Your task to perform on an android device: turn on data saver in the chrome app Image 0: 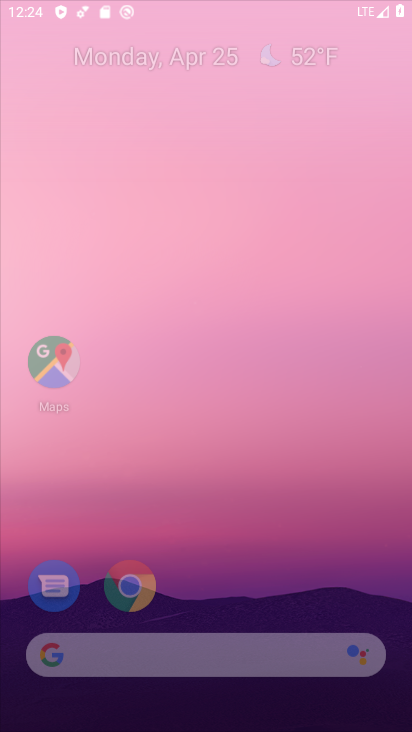
Step 0: click (333, 94)
Your task to perform on an android device: turn on data saver in the chrome app Image 1: 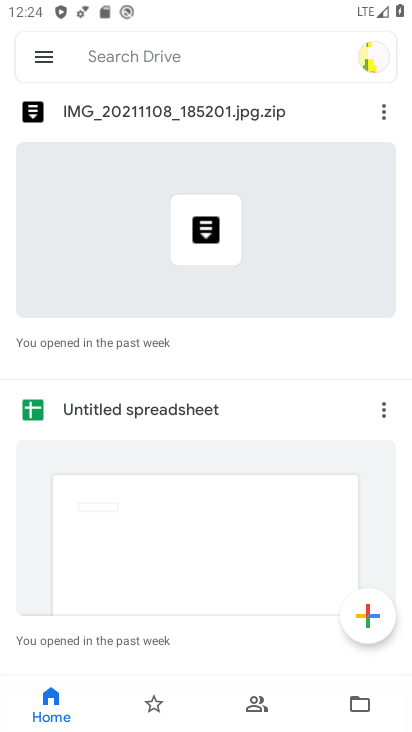
Step 1: press home button
Your task to perform on an android device: turn on data saver in the chrome app Image 2: 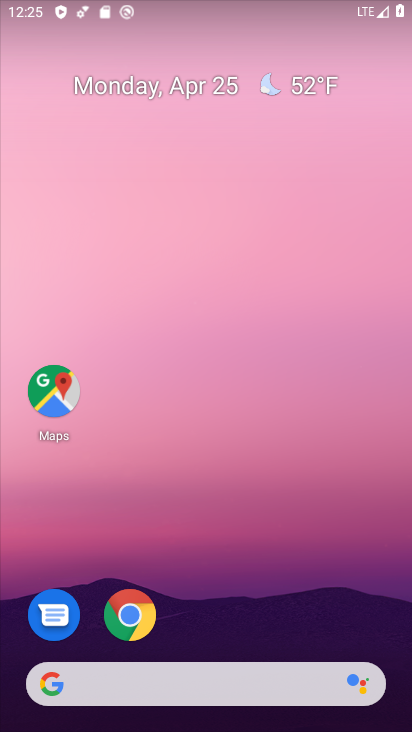
Step 2: drag from (159, 681) to (257, 234)
Your task to perform on an android device: turn on data saver in the chrome app Image 3: 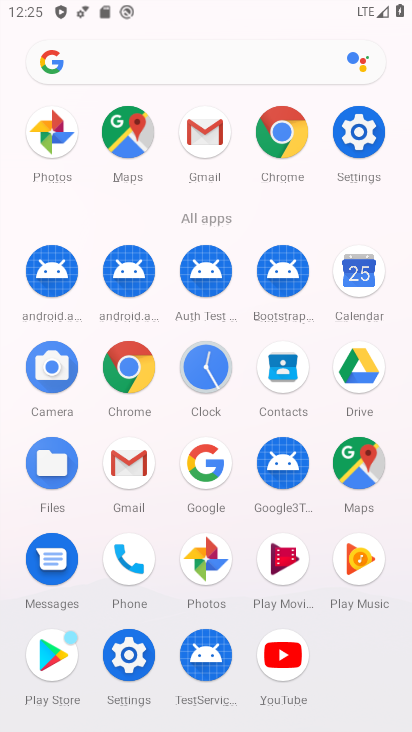
Step 3: click (294, 136)
Your task to perform on an android device: turn on data saver in the chrome app Image 4: 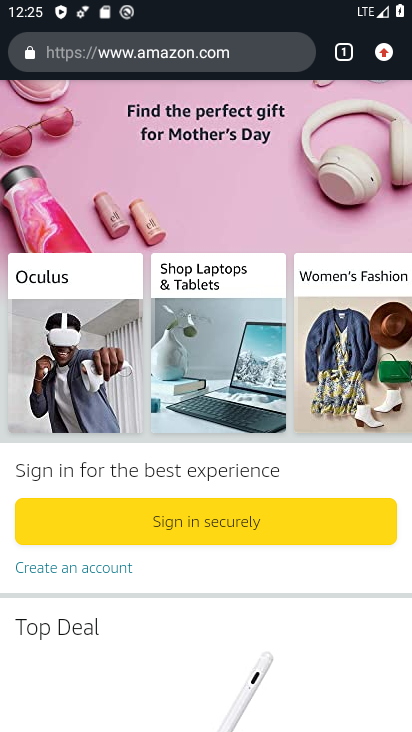
Step 4: click (383, 58)
Your task to perform on an android device: turn on data saver in the chrome app Image 5: 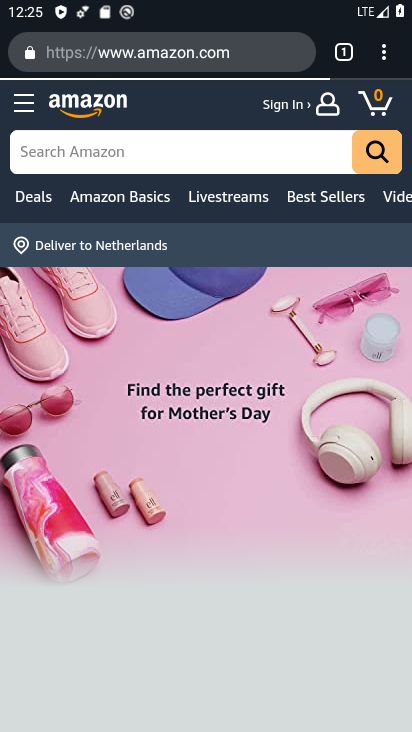
Step 5: drag from (383, 58) to (222, 660)
Your task to perform on an android device: turn on data saver in the chrome app Image 6: 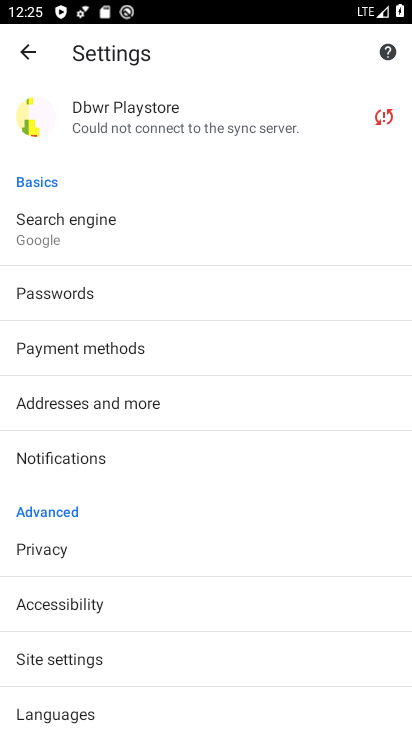
Step 6: drag from (148, 640) to (310, 301)
Your task to perform on an android device: turn on data saver in the chrome app Image 7: 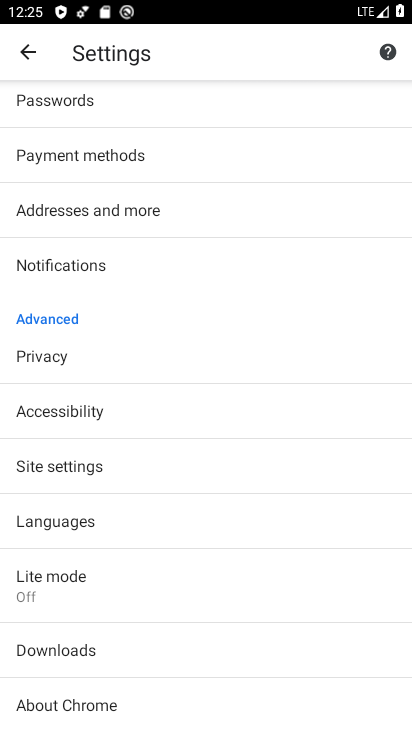
Step 7: click (91, 577)
Your task to perform on an android device: turn on data saver in the chrome app Image 8: 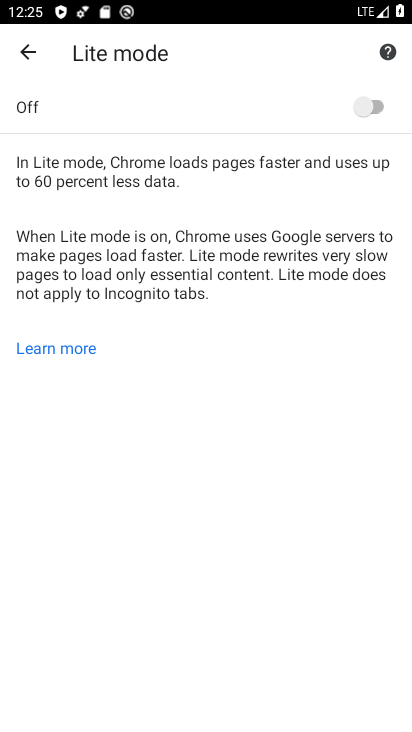
Step 8: click (381, 106)
Your task to perform on an android device: turn on data saver in the chrome app Image 9: 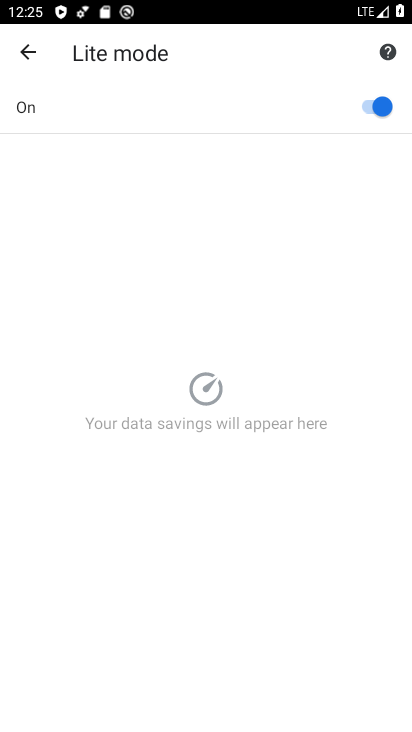
Step 9: task complete